Your task to perform on an android device: Go to network settings Image 0: 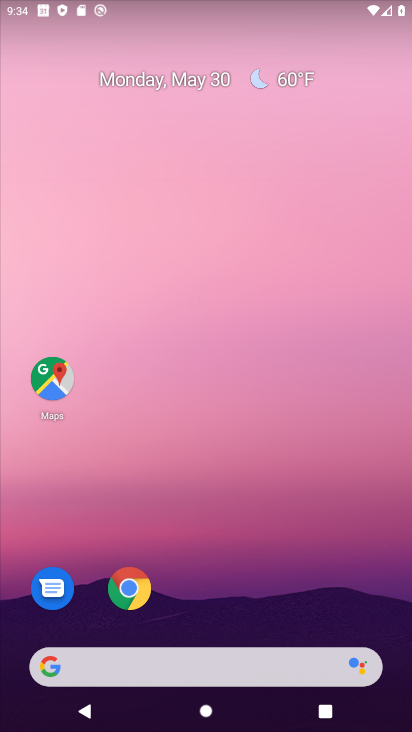
Step 0: drag from (212, 595) to (280, 248)
Your task to perform on an android device: Go to network settings Image 1: 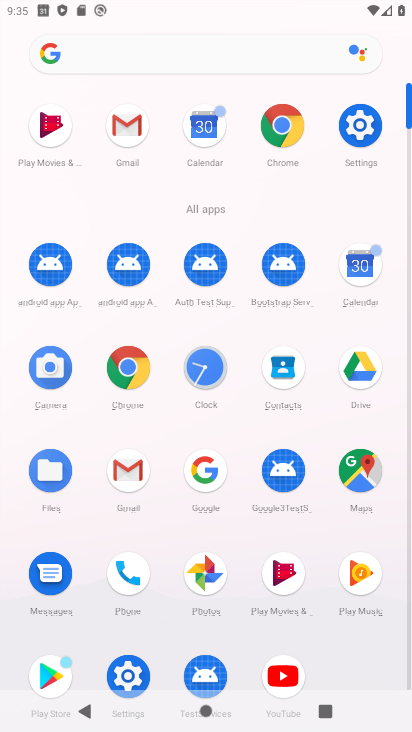
Step 1: click (129, 664)
Your task to perform on an android device: Go to network settings Image 2: 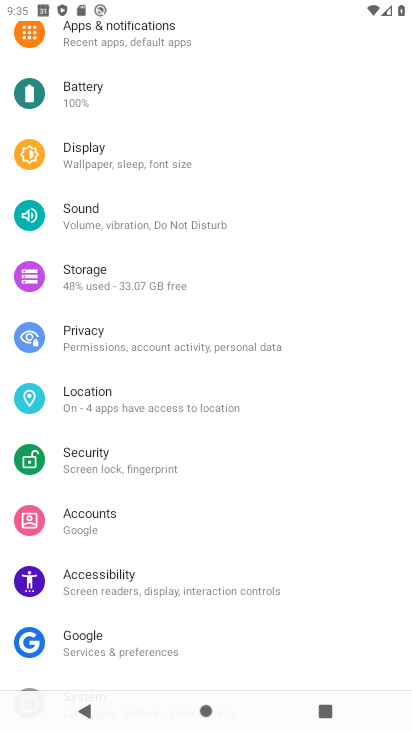
Step 2: drag from (198, 175) to (164, 657)
Your task to perform on an android device: Go to network settings Image 3: 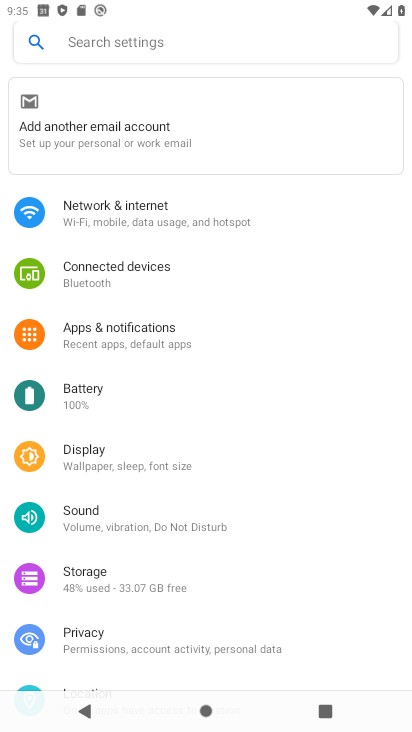
Step 3: click (129, 233)
Your task to perform on an android device: Go to network settings Image 4: 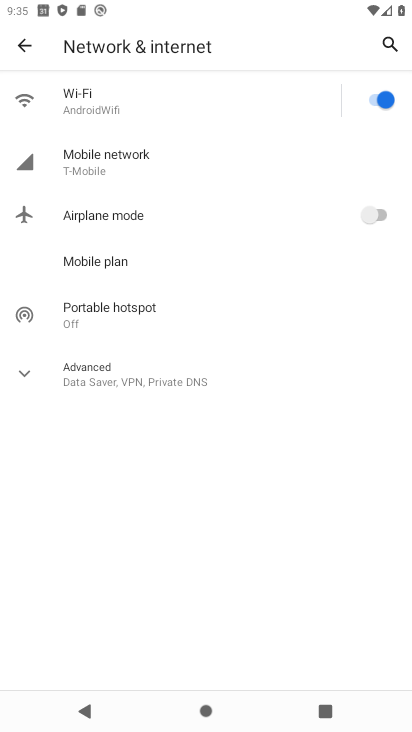
Step 4: click (152, 158)
Your task to perform on an android device: Go to network settings Image 5: 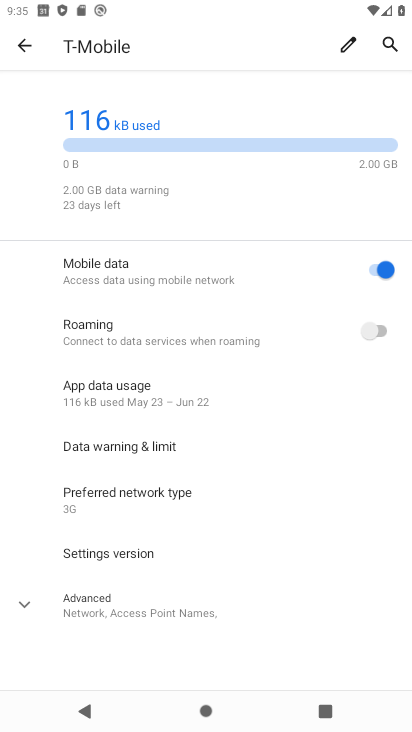
Step 5: task complete